Your task to perform on an android device: Go to display settings Image 0: 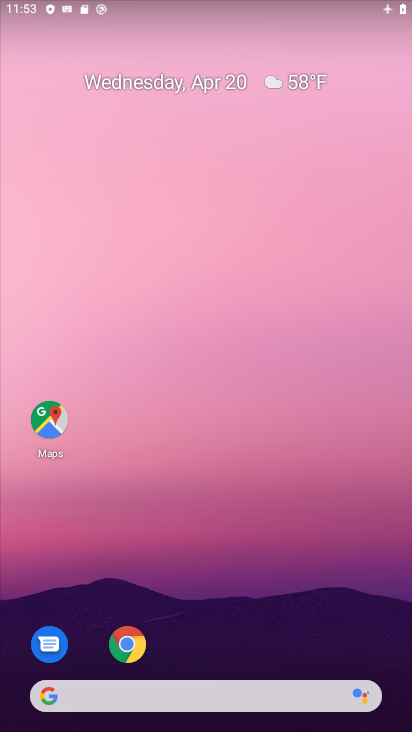
Step 0: drag from (223, 581) to (250, 70)
Your task to perform on an android device: Go to display settings Image 1: 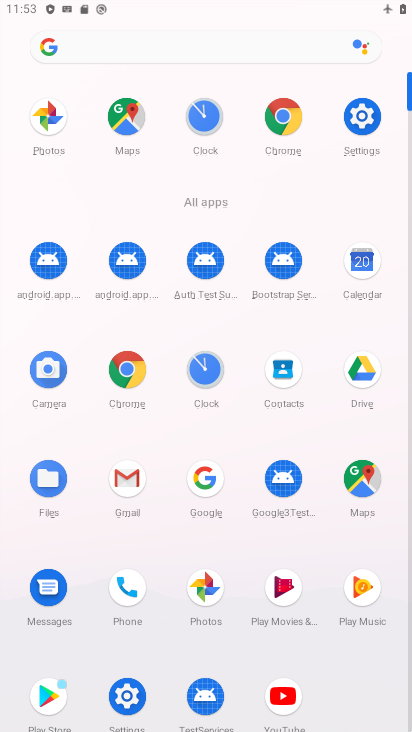
Step 1: click (360, 116)
Your task to perform on an android device: Go to display settings Image 2: 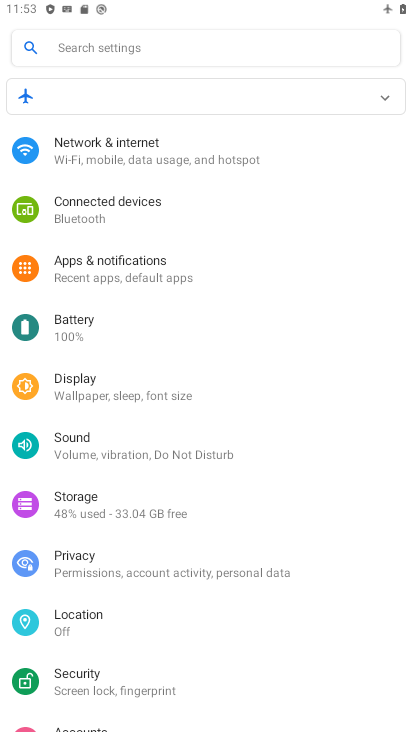
Step 2: click (115, 394)
Your task to perform on an android device: Go to display settings Image 3: 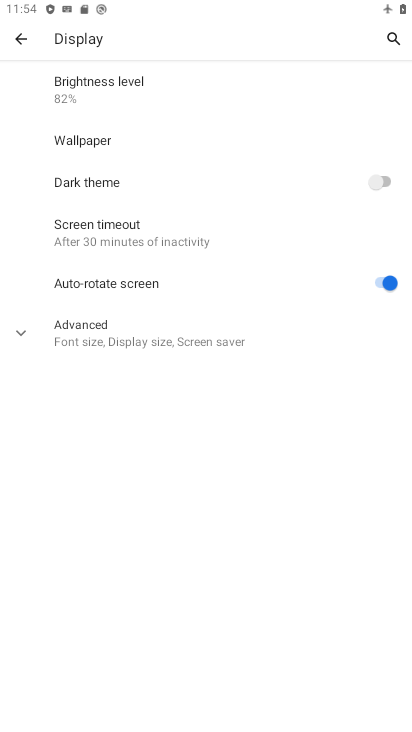
Step 3: task complete